Your task to perform on an android device: Go to Maps Image 0: 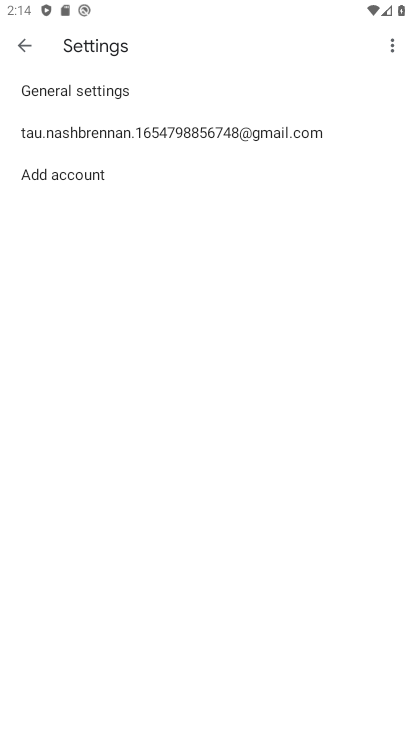
Step 0: press home button
Your task to perform on an android device: Go to Maps Image 1: 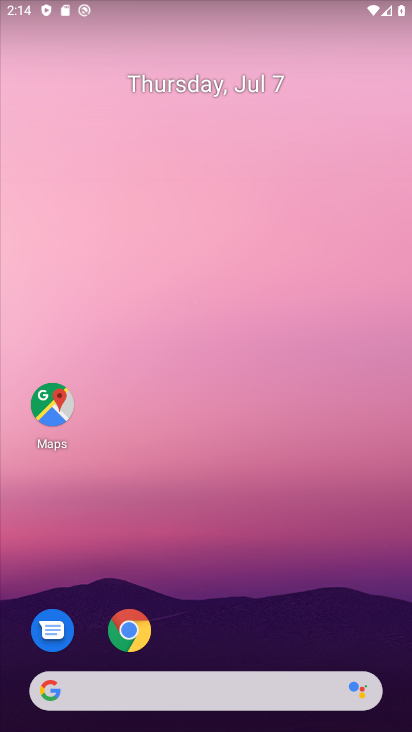
Step 1: click (59, 399)
Your task to perform on an android device: Go to Maps Image 2: 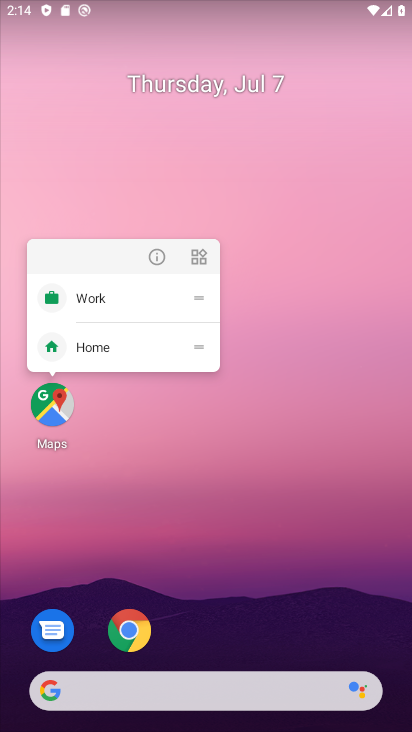
Step 2: click (60, 406)
Your task to perform on an android device: Go to Maps Image 3: 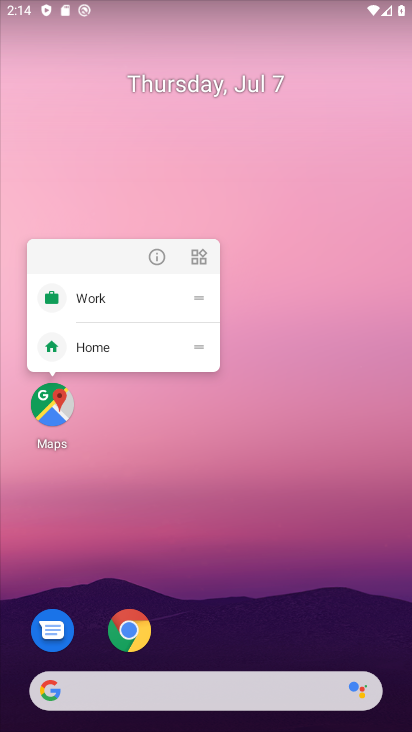
Step 3: click (60, 419)
Your task to perform on an android device: Go to Maps Image 4: 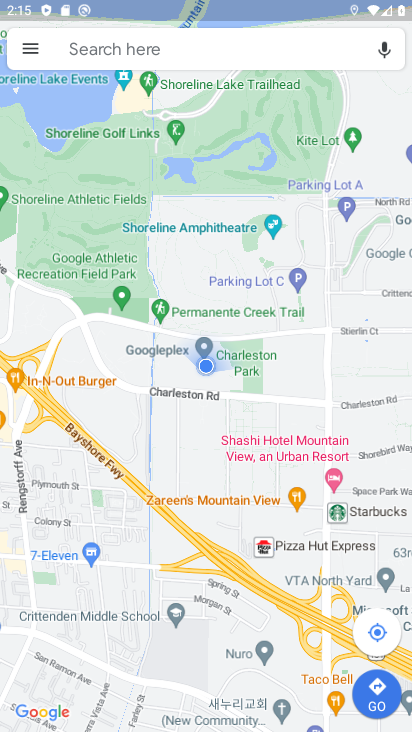
Step 4: task complete